Your task to perform on an android device: Open the phone app and click the voicemail tab. Image 0: 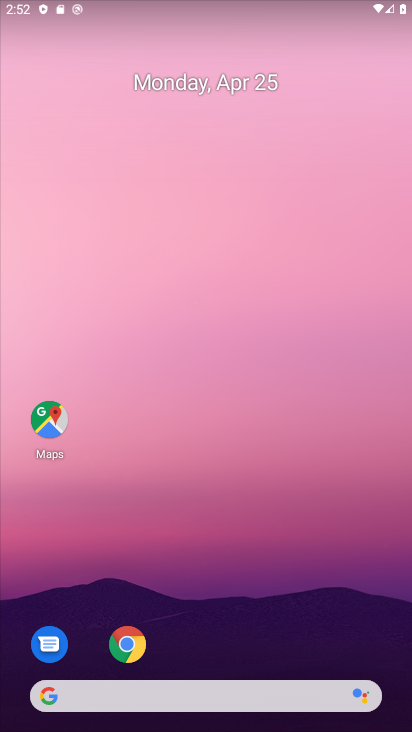
Step 0: press home button
Your task to perform on an android device: Open the phone app and click the voicemail tab. Image 1: 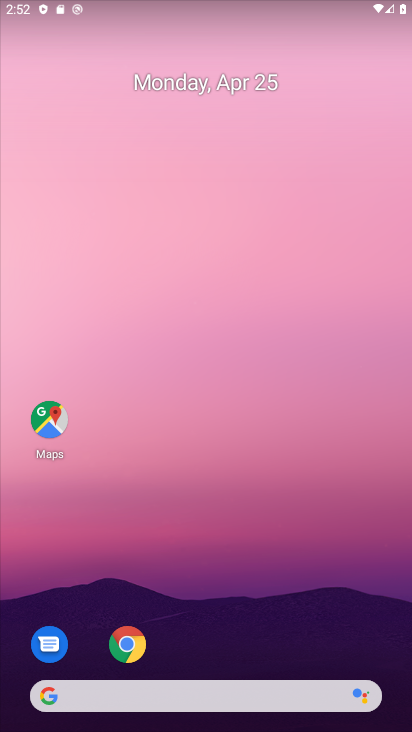
Step 1: drag from (272, 586) to (218, 187)
Your task to perform on an android device: Open the phone app and click the voicemail tab. Image 2: 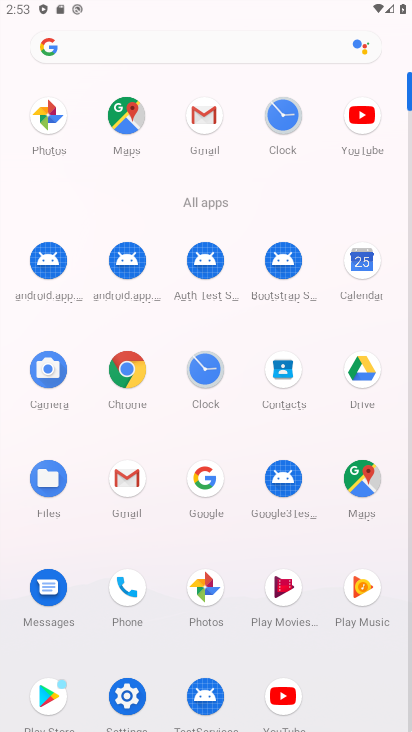
Step 2: click (135, 591)
Your task to perform on an android device: Open the phone app and click the voicemail tab. Image 3: 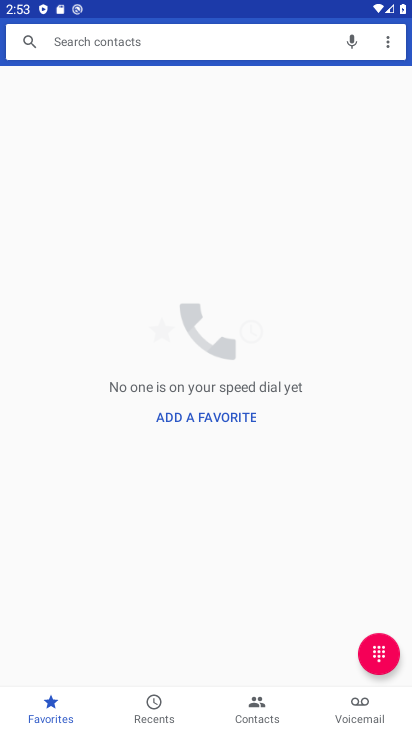
Step 3: click (350, 717)
Your task to perform on an android device: Open the phone app and click the voicemail tab. Image 4: 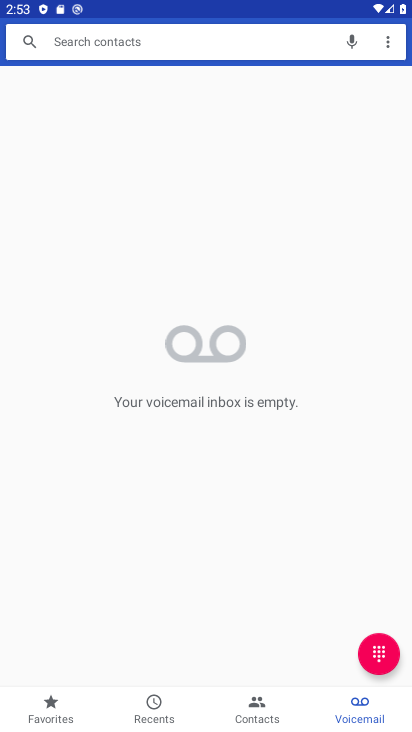
Step 4: task complete